Your task to perform on an android device: Open display settings Image 0: 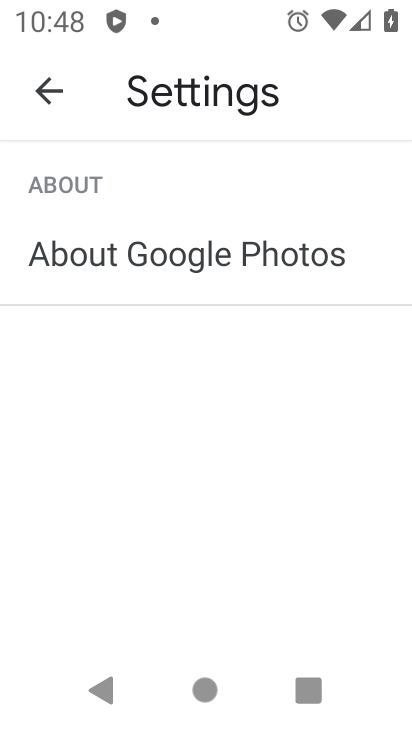
Step 0: press home button
Your task to perform on an android device: Open display settings Image 1: 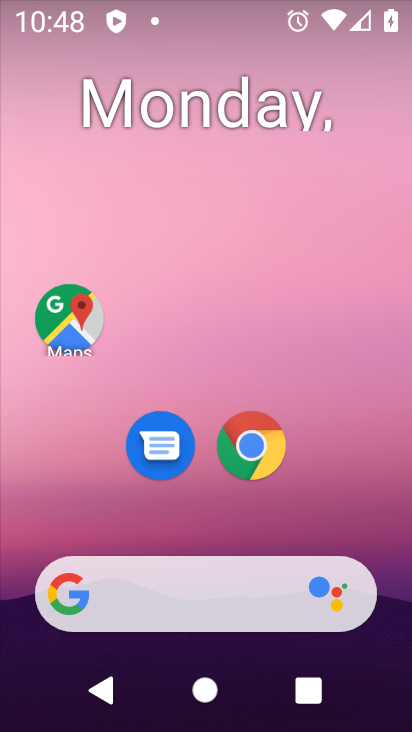
Step 1: drag from (311, 472) to (154, 65)
Your task to perform on an android device: Open display settings Image 2: 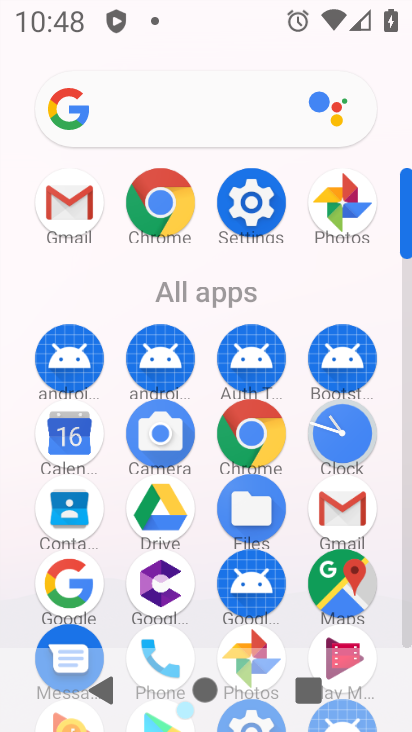
Step 2: click (263, 203)
Your task to perform on an android device: Open display settings Image 3: 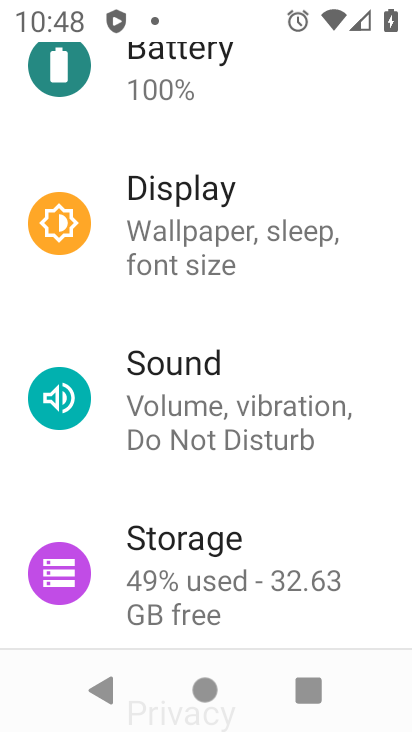
Step 3: click (197, 246)
Your task to perform on an android device: Open display settings Image 4: 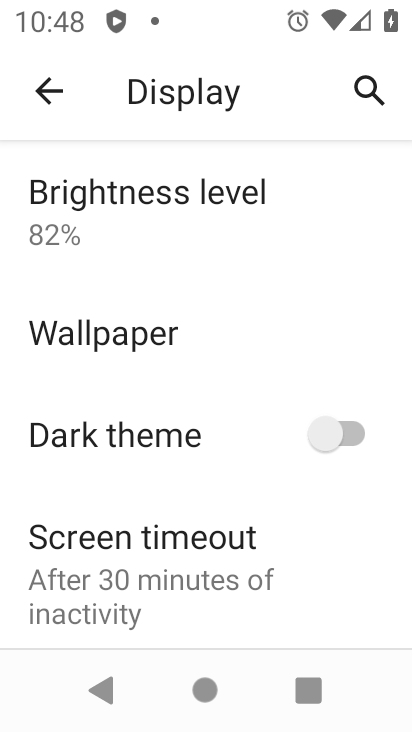
Step 4: drag from (240, 601) to (231, 216)
Your task to perform on an android device: Open display settings Image 5: 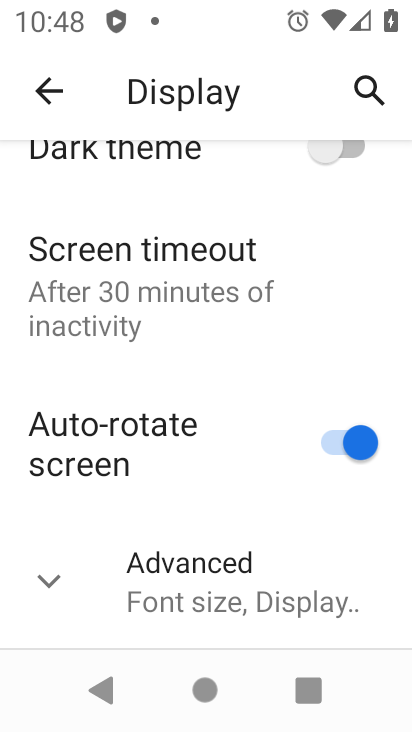
Step 5: click (220, 581)
Your task to perform on an android device: Open display settings Image 6: 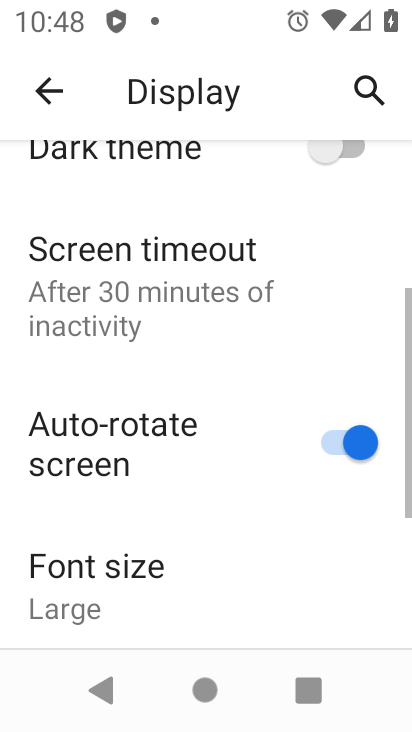
Step 6: task complete